Your task to perform on an android device: What's the weather going to be this weekend? Image 0: 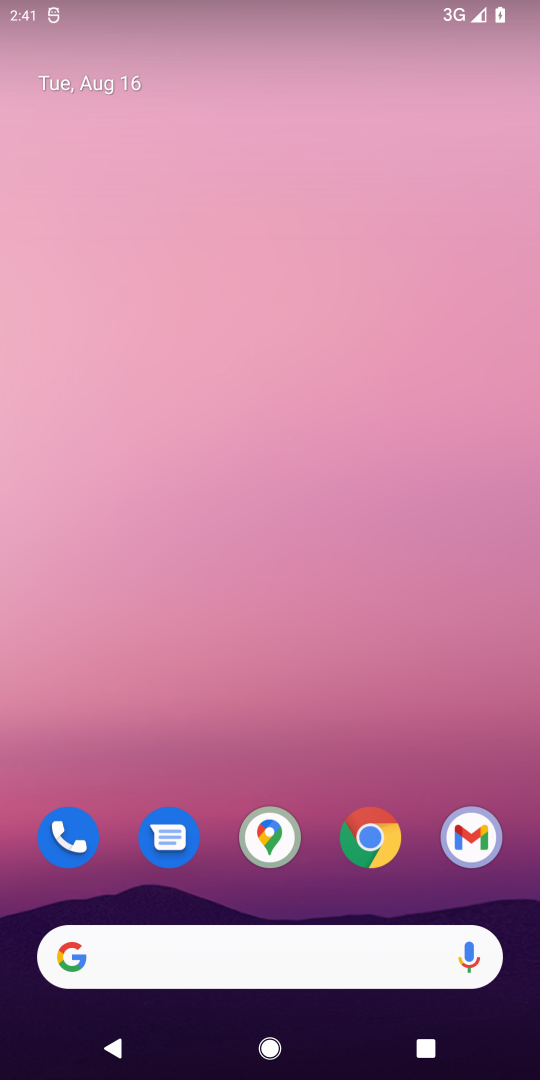
Step 0: press home button
Your task to perform on an android device: What's the weather going to be this weekend? Image 1: 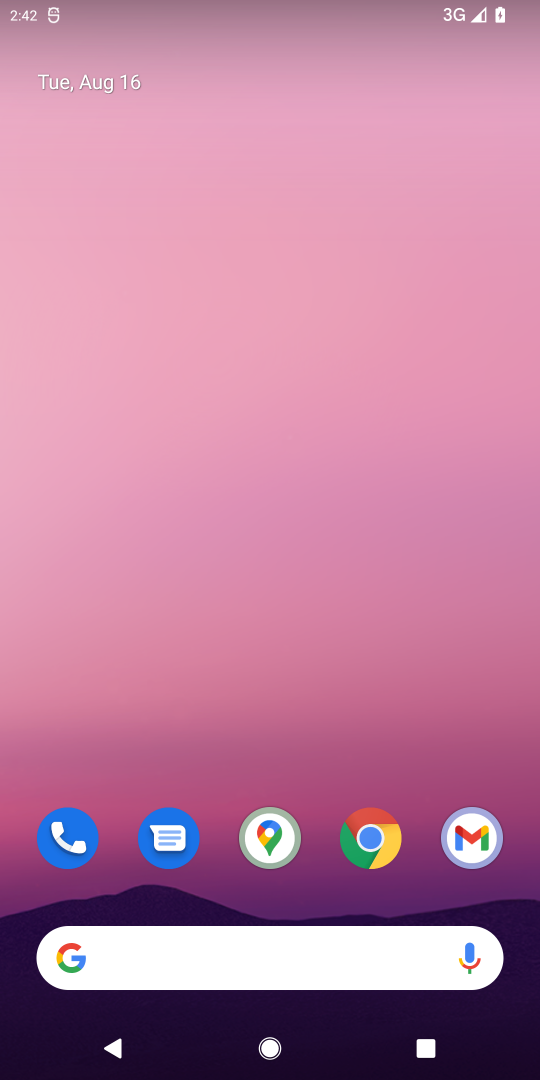
Step 1: click (66, 964)
Your task to perform on an android device: What's the weather going to be this weekend? Image 2: 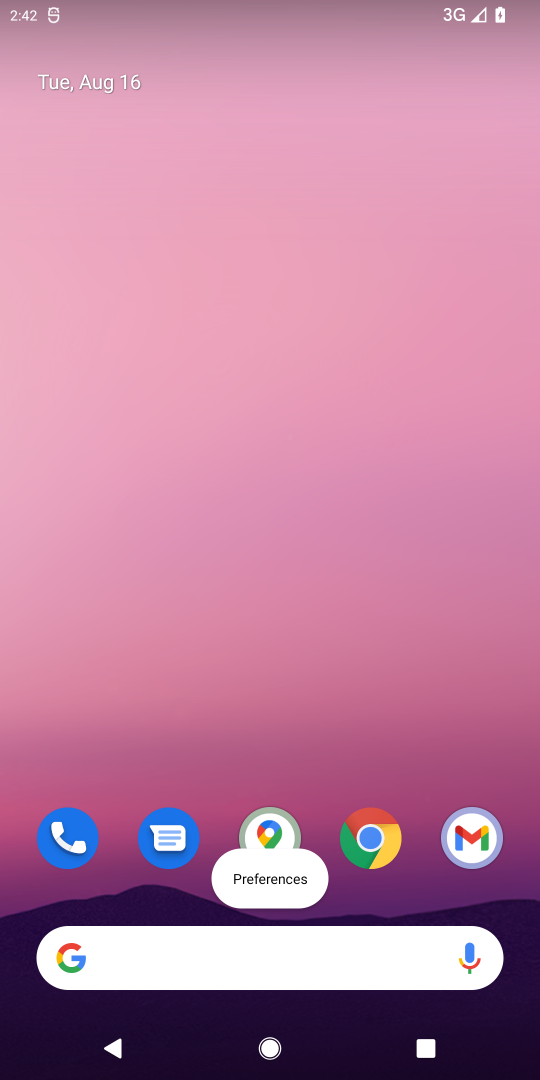
Step 2: click (69, 963)
Your task to perform on an android device: What's the weather going to be this weekend? Image 3: 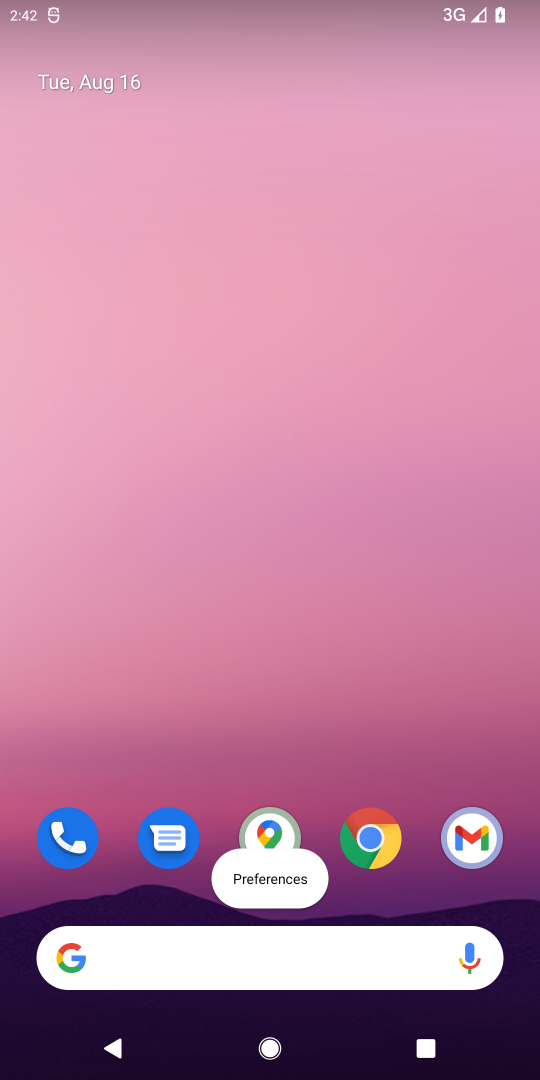
Step 3: click (78, 965)
Your task to perform on an android device: What's the weather going to be this weekend? Image 4: 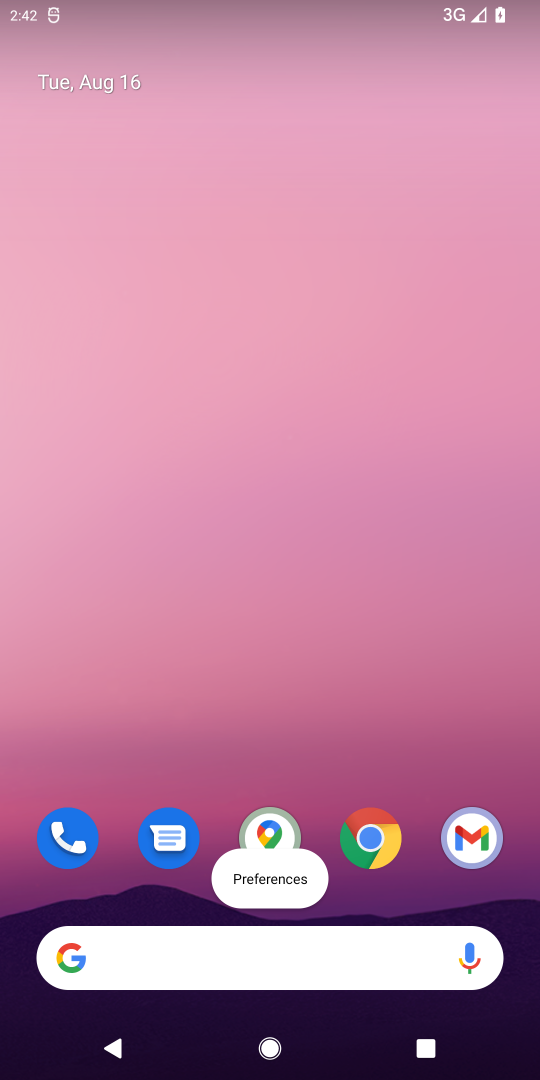
Step 4: click (58, 968)
Your task to perform on an android device: What's the weather going to be this weekend? Image 5: 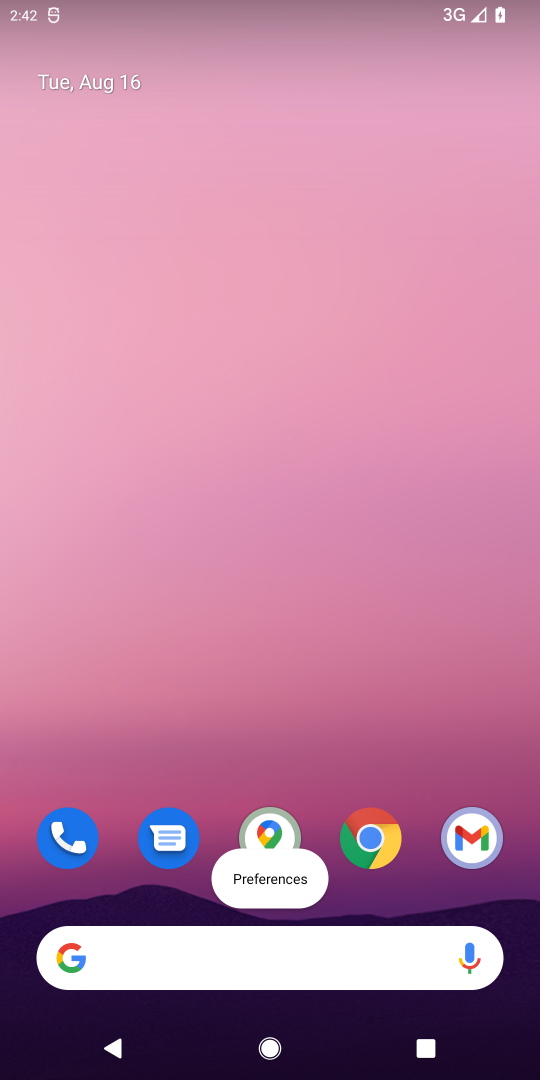
Step 5: click (62, 964)
Your task to perform on an android device: What's the weather going to be this weekend? Image 6: 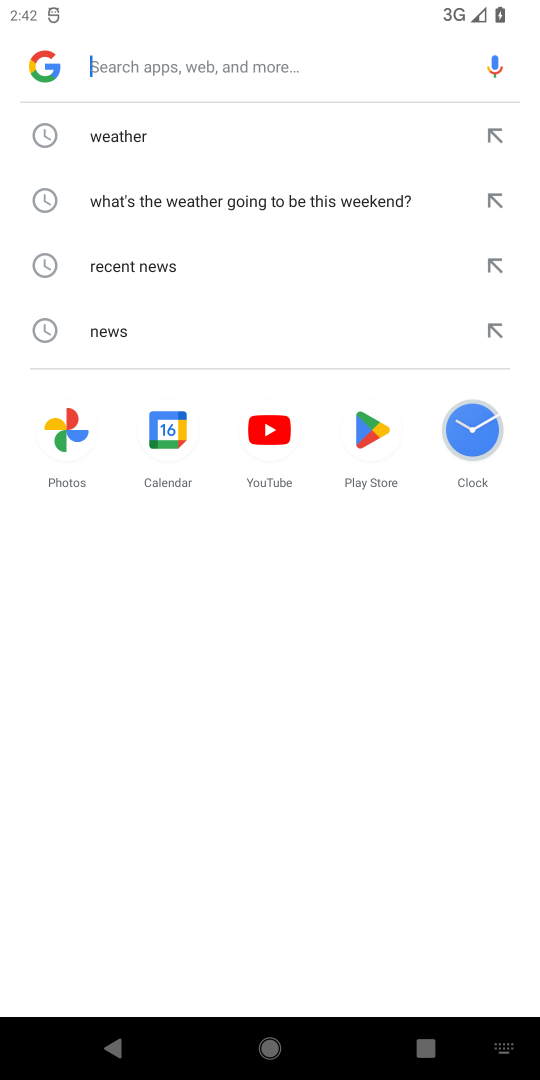
Step 6: click (306, 203)
Your task to perform on an android device: What's the weather going to be this weekend? Image 7: 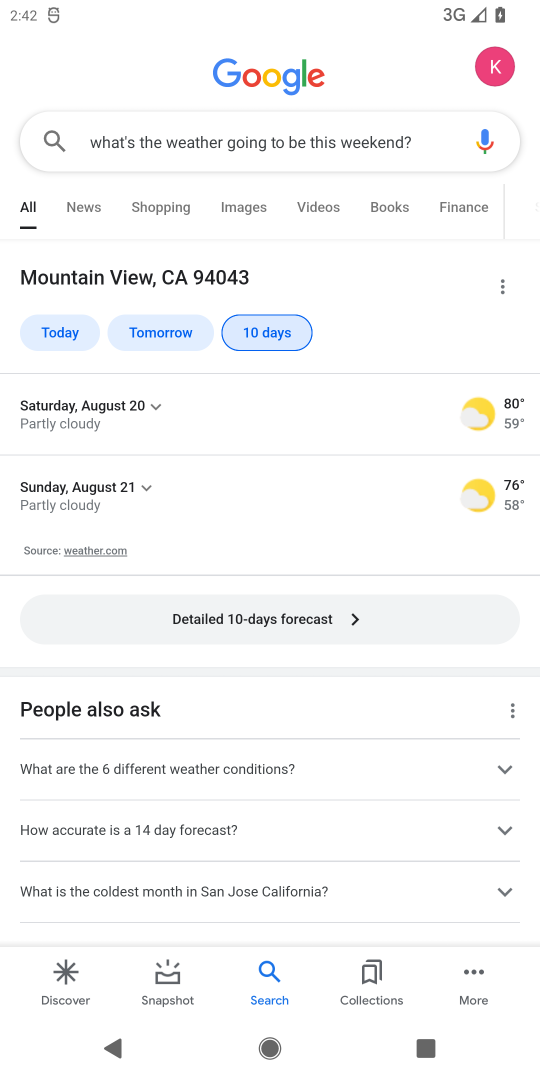
Step 7: task complete